Your task to perform on an android device: toggle wifi Image 0: 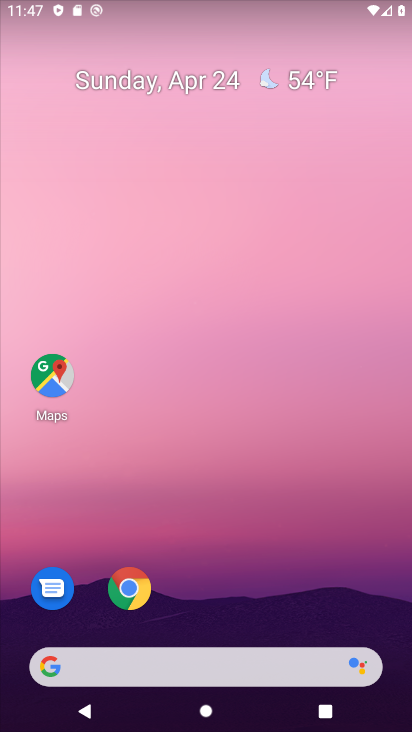
Step 0: drag from (218, 632) to (193, 13)
Your task to perform on an android device: toggle wifi Image 1: 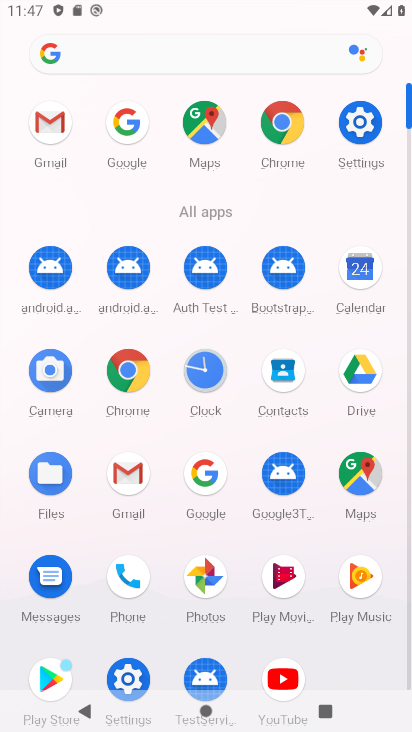
Step 1: click (360, 115)
Your task to perform on an android device: toggle wifi Image 2: 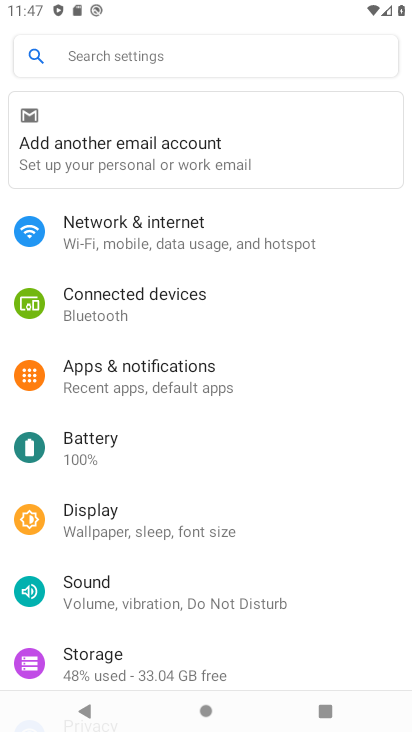
Step 2: click (184, 241)
Your task to perform on an android device: toggle wifi Image 3: 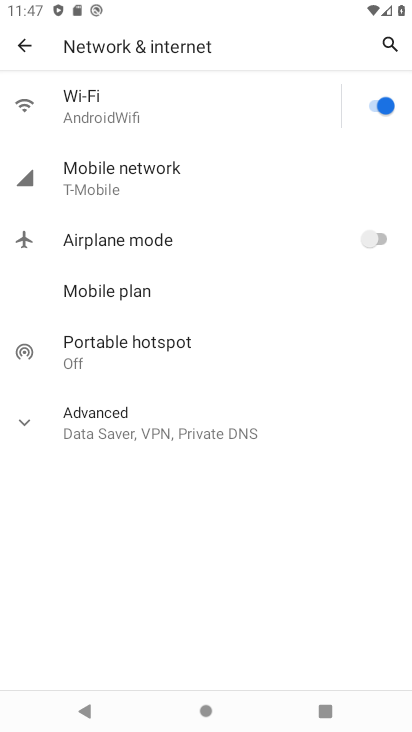
Step 3: click (368, 100)
Your task to perform on an android device: toggle wifi Image 4: 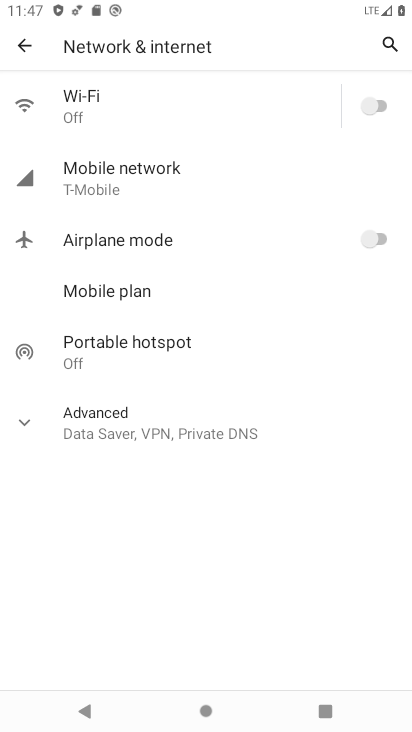
Step 4: task complete